Your task to perform on an android device: Do I have any events tomorrow? Image 0: 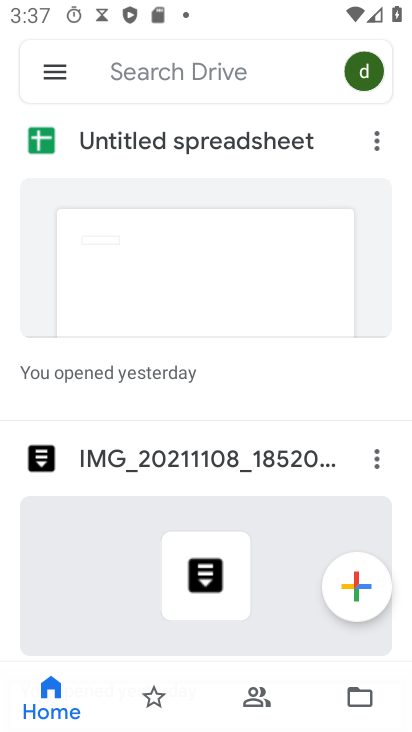
Step 0: drag from (292, 707) to (278, 254)
Your task to perform on an android device: Do I have any events tomorrow? Image 1: 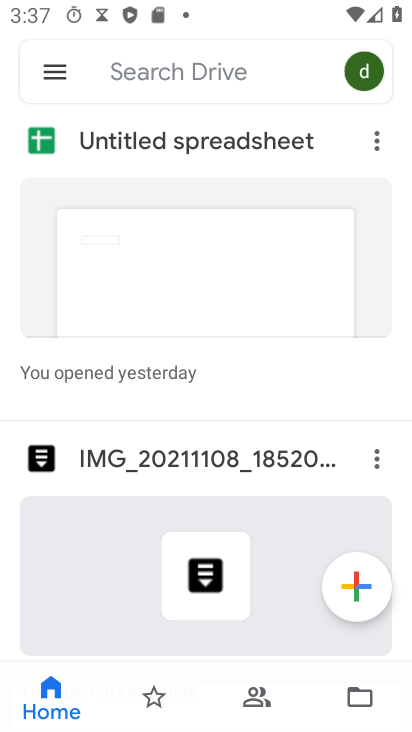
Step 1: press back button
Your task to perform on an android device: Do I have any events tomorrow? Image 2: 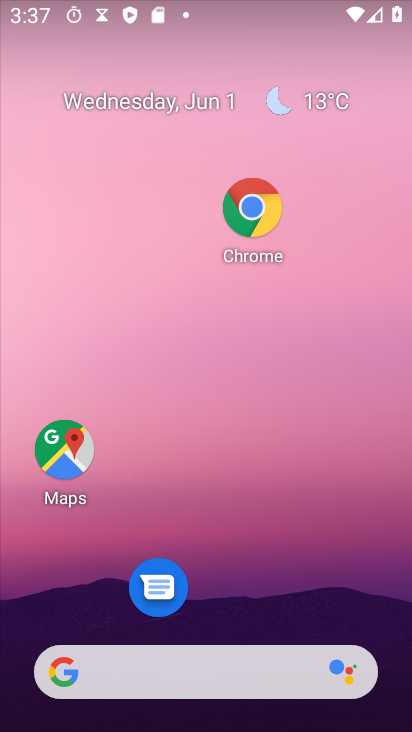
Step 2: drag from (235, 649) to (175, 186)
Your task to perform on an android device: Do I have any events tomorrow? Image 3: 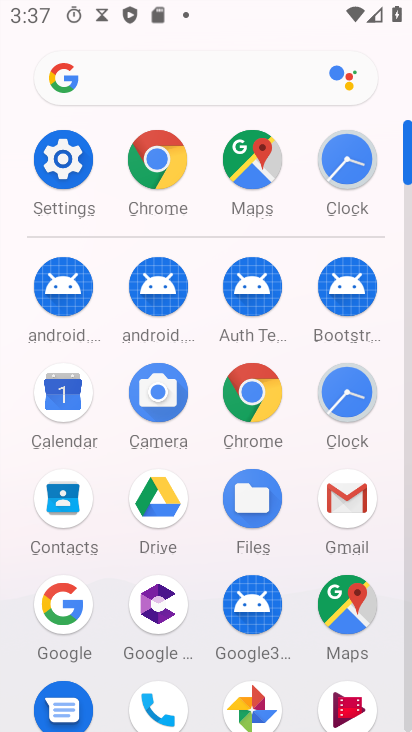
Step 3: click (65, 389)
Your task to perform on an android device: Do I have any events tomorrow? Image 4: 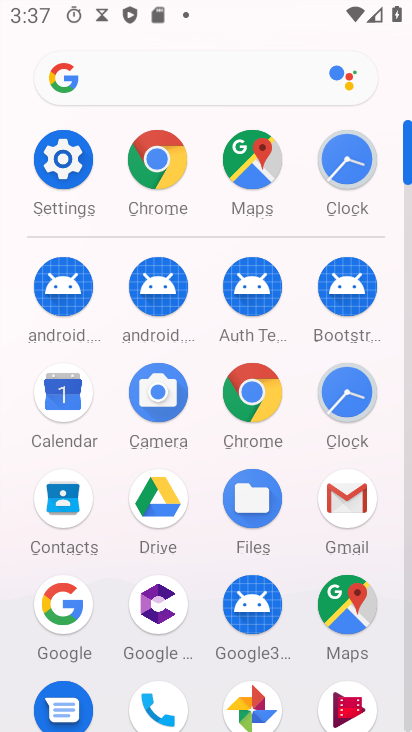
Step 4: click (65, 389)
Your task to perform on an android device: Do I have any events tomorrow? Image 5: 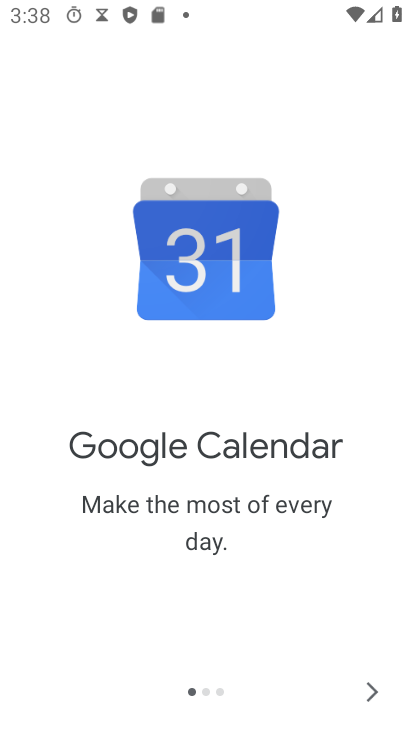
Step 5: click (368, 690)
Your task to perform on an android device: Do I have any events tomorrow? Image 6: 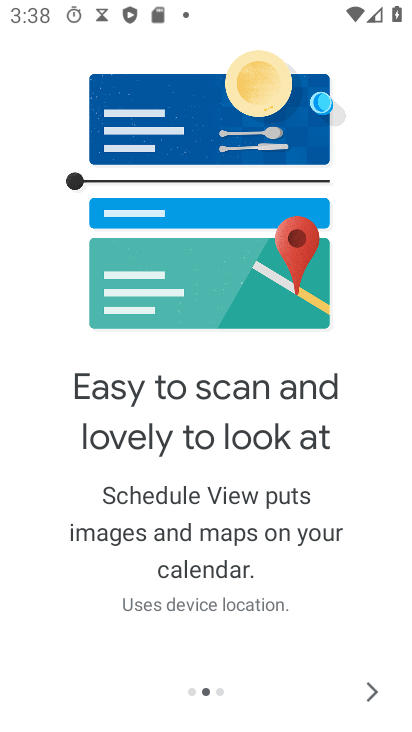
Step 6: click (368, 686)
Your task to perform on an android device: Do I have any events tomorrow? Image 7: 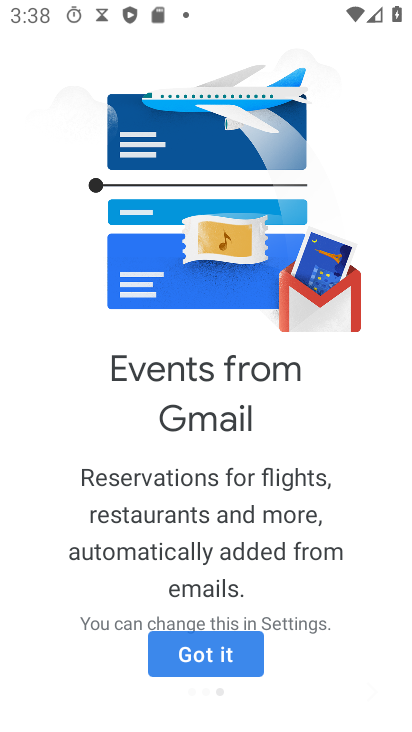
Step 7: click (368, 686)
Your task to perform on an android device: Do I have any events tomorrow? Image 8: 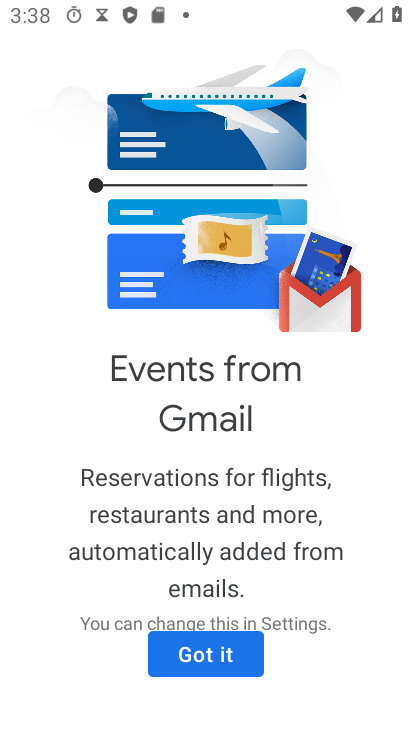
Step 8: click (368, 686)
Your task to perform on an android device: Do I have any events tomorrow? Image 9: 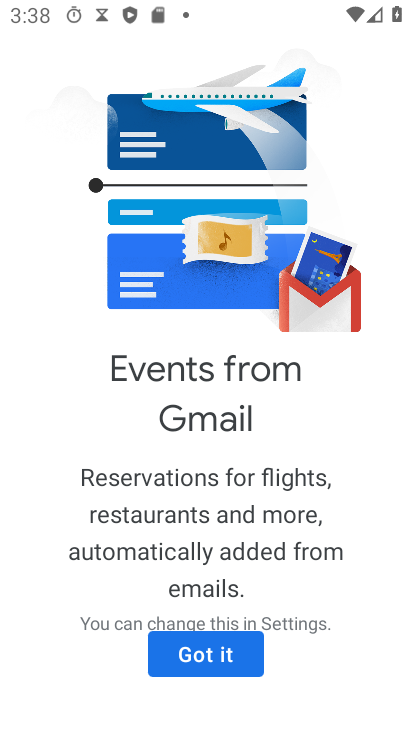
Step 9: click (222, 663)
Your task to perform on an android device: Do I have any events tomorrow? Image 10: 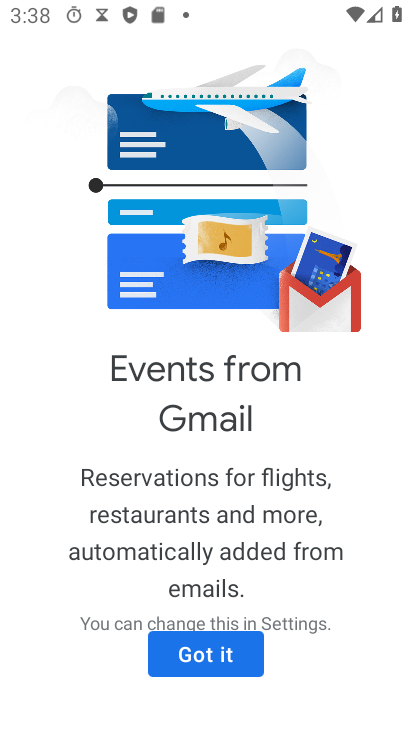
Step 10: click (221, 662)
Your task to perform on an android device: Do I have any events tomorrow? Image 11: 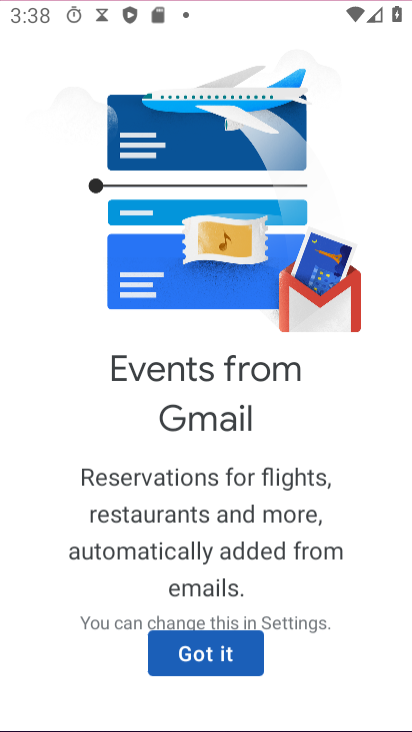
Step 11: click (221, 662)
Your task to perform on an android device: Do I have any events tomorrow? Image 12: 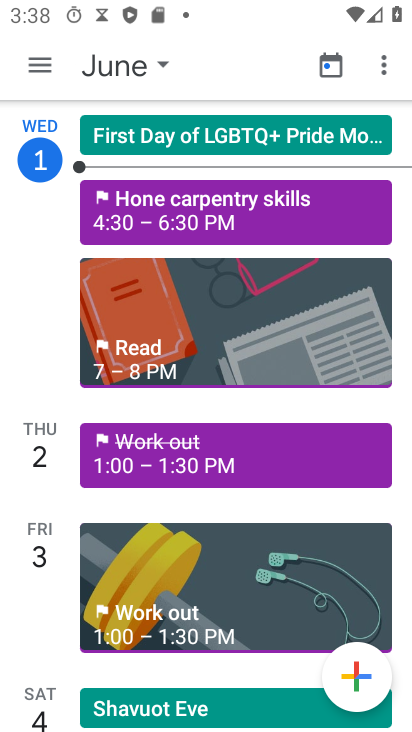
Step 12: click (218, 661)
Your task to perform on an android device: Do I have any events tomorrow? Image 13: 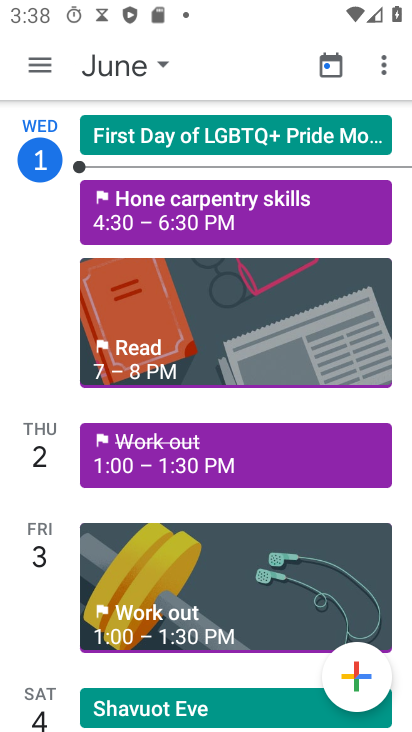
Step 13: click (146, 457)
Your task to perform on an android device: Do I have any events tomorrow? Image 14: 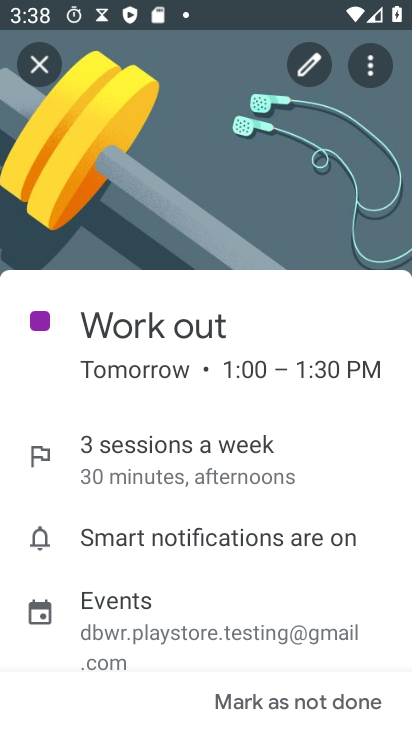
Step 14: task complete